Your task to perform on an android device: What is the news today? Image 0: 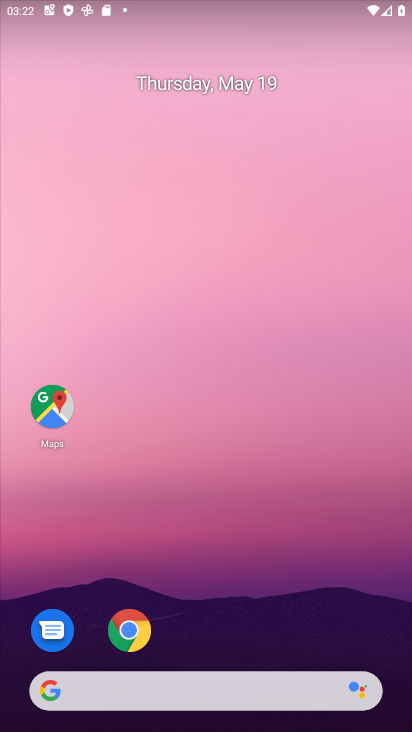
Step 0: drag from (12, 239) to (389, 324)
Your task to perform on an android device: What is the news today? Image 1: 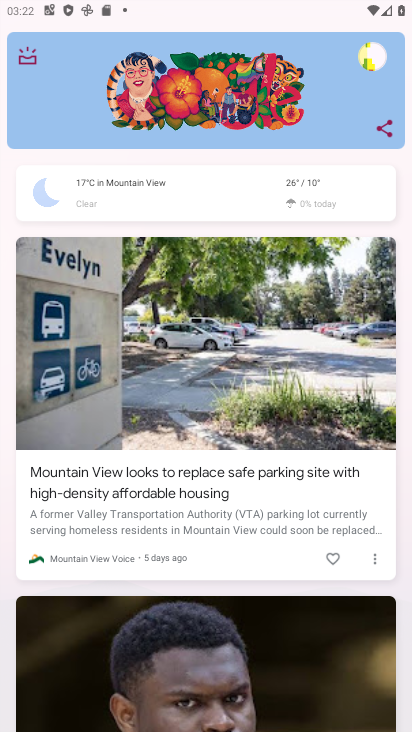
Step 1: task complete